Your task to perform on an android device: Show me popular videos on Youtube Image 0: 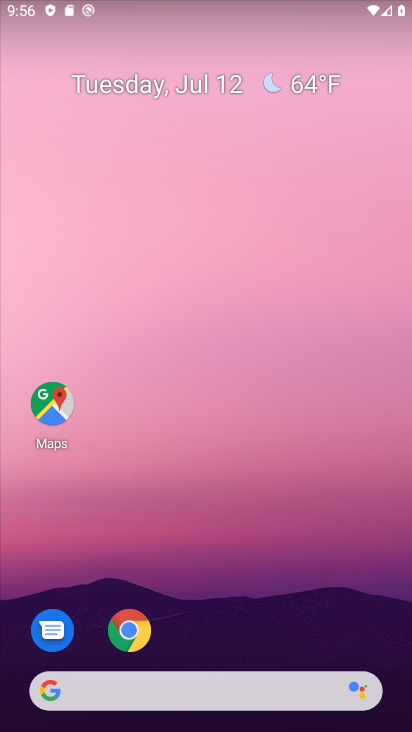
Step 0: drag from (302, 557) to (271, 0)
Your task to perform on an android device: Show me popular videos on Youtube Image 1: 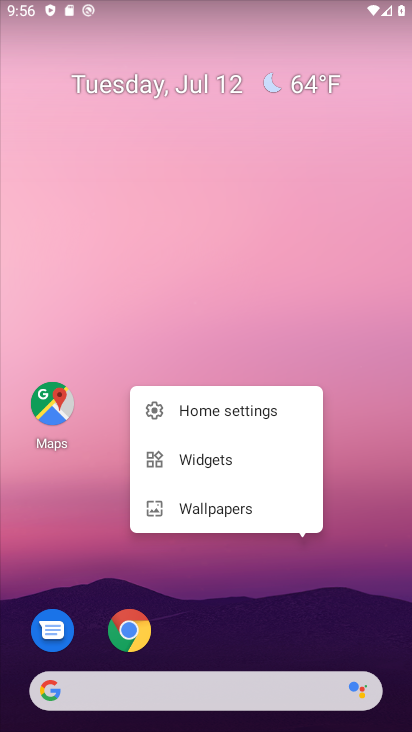
Step 1: click (361, 273)
Your task to perform on an android device: Show me popular videos on Youtube Image 2: 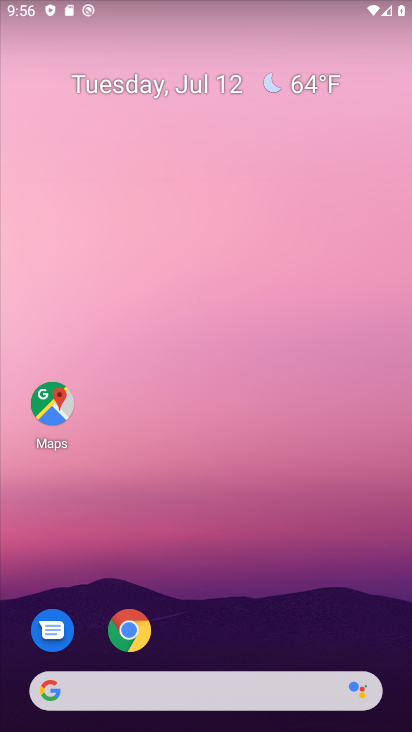
Step 2: drag from (351, 617) to (335, 0)
Your task to perform on an android device: Show me popular videos on Youtube Image 3: 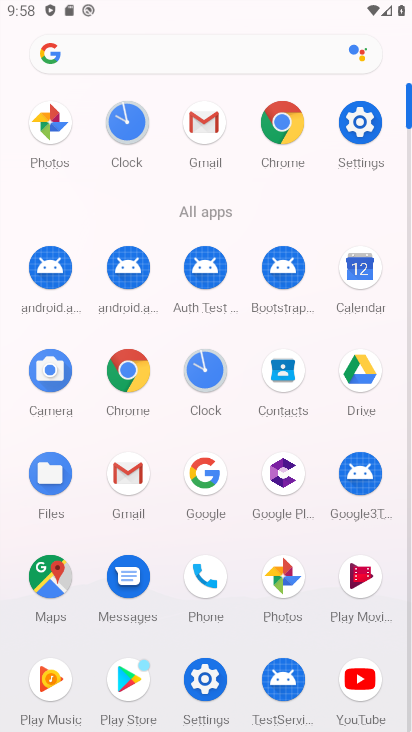
Step 3: click (368, 681)
Your task to perform on an android device: Show me popular videos on Youtube Image 4: 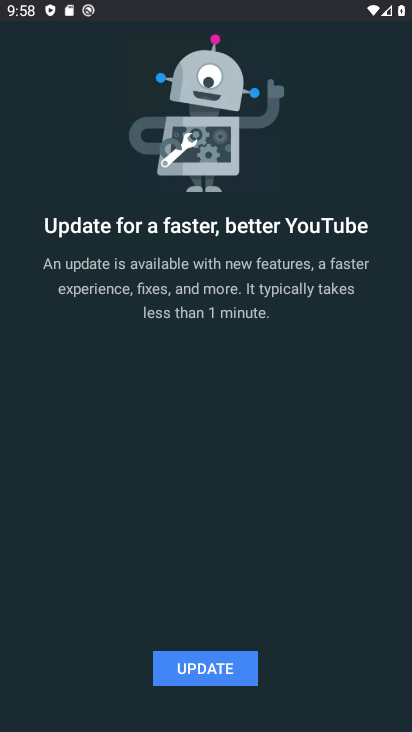
Step 4: click (179, 666)
Your task to perform on an android device: Show me popular videos on Youtube Image 5: 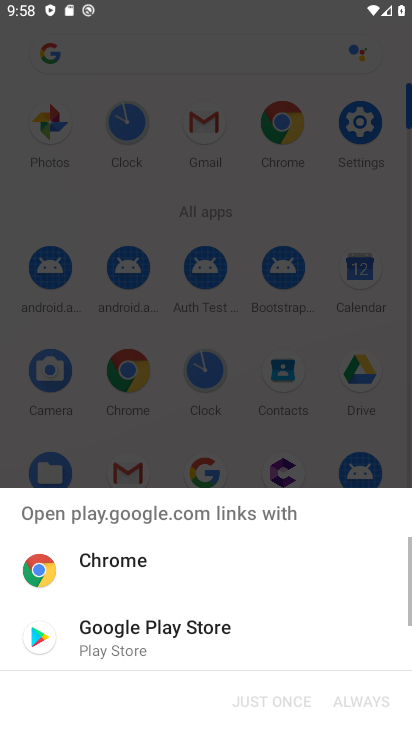
Step 5: click (112, 635)
Your task to perform on an android device: Show me popular videos on Youtube Image 6: 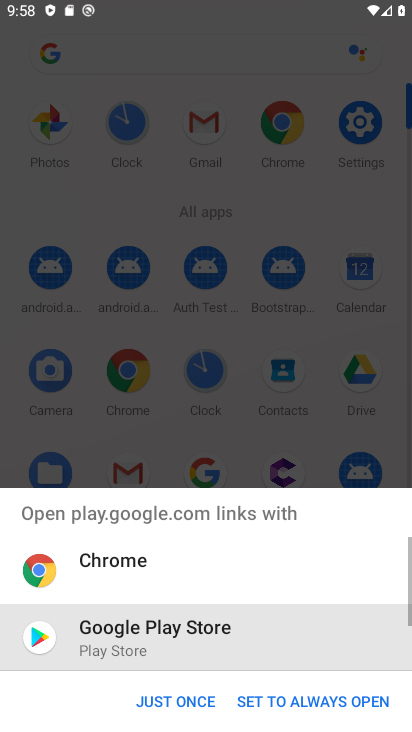
Step 6: click (156, 704)
Your task to perform on an android device: Show me popular videos on Youtube Image 7: 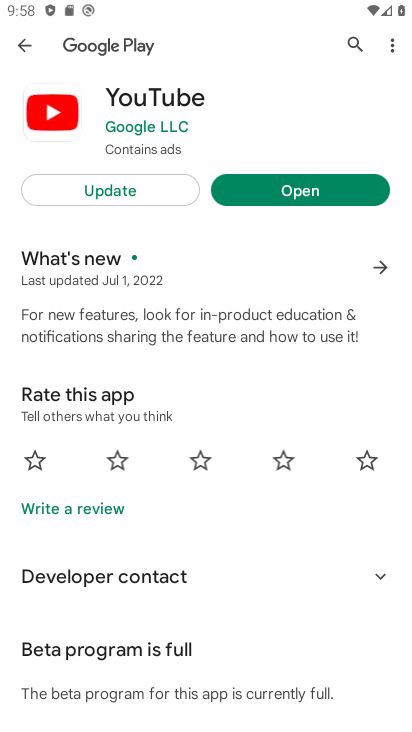
Step 7: click (139, 184)
Your task to perform on an android device: Show me popular videos on Youtube Image 8: 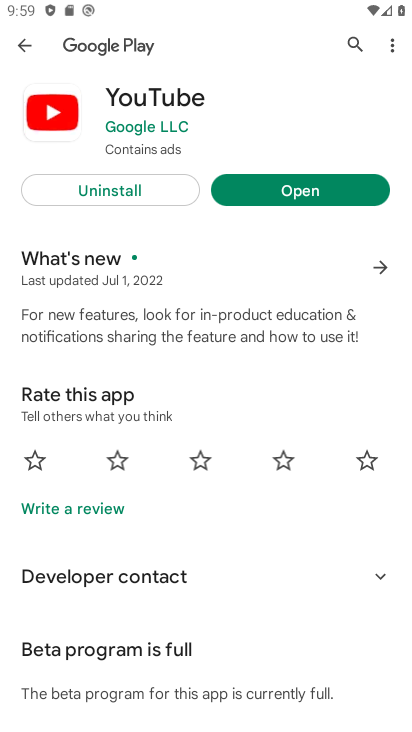
Step 8: click (306, 193)
Your task to perform on an android device: Show me popular videos on Youtube Image 9: 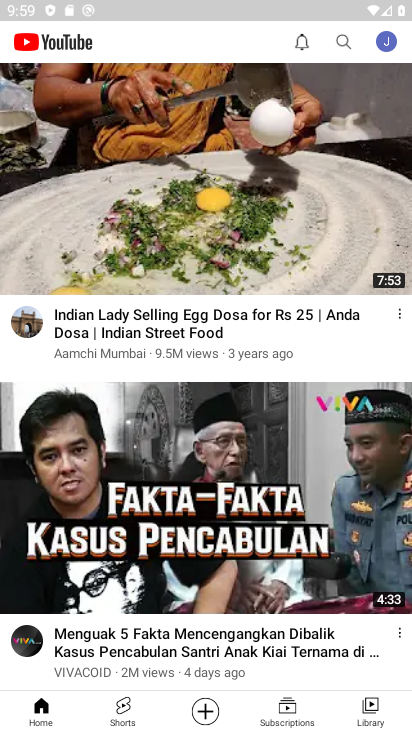
Step 9: click (348, 42)
Your task to perform on an android device: Show me popular videos on Youtube Image 10: 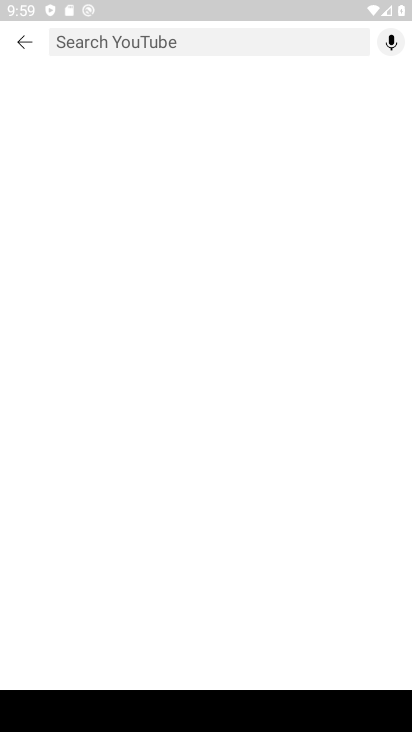
Step 10: click (158, 36)
Your task to perform on an android device: Show me popular videos on Youtube Image 11: 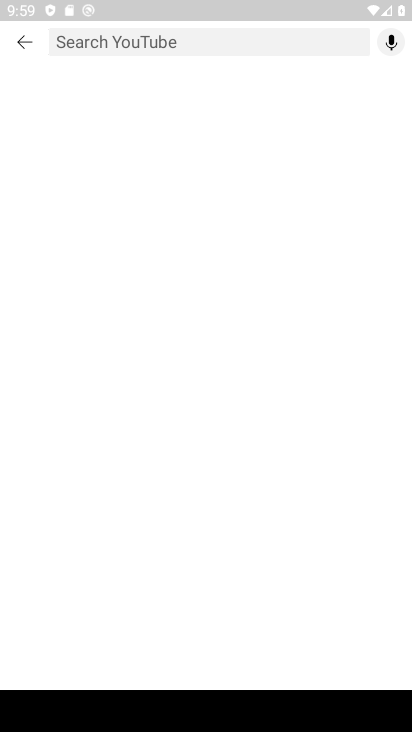
Step 11: type " popular video"
Your task to perform on an android device: Show me popular videos on Youtube Image 12: 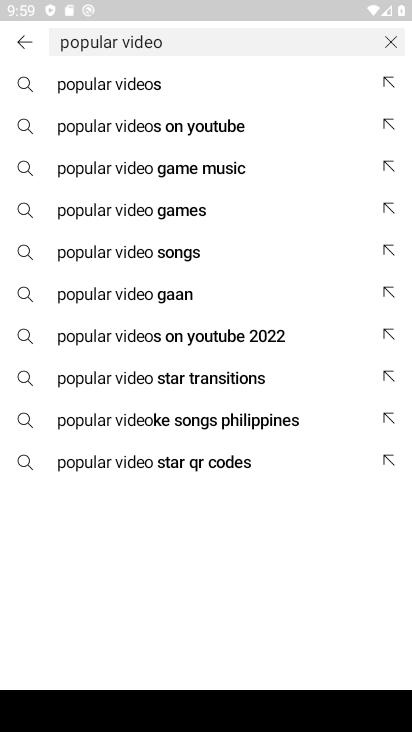
Step 12: click (98, 93)
Your task to perform on an android device: Show me popular videos on Youtube Image 13: 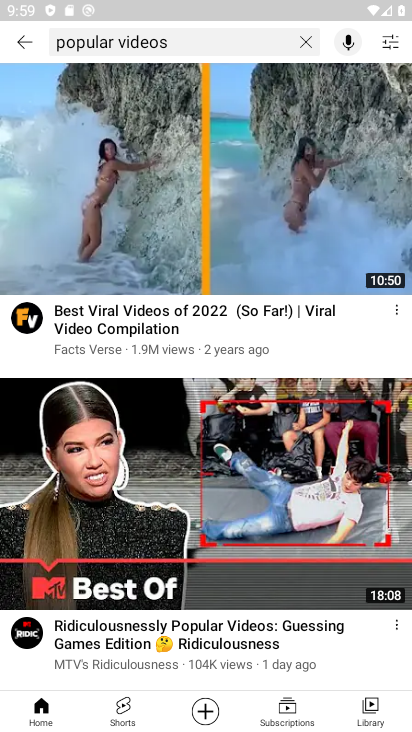
Step 13: task complete